Your task to perform on an android device: Show me recent news Image 0: 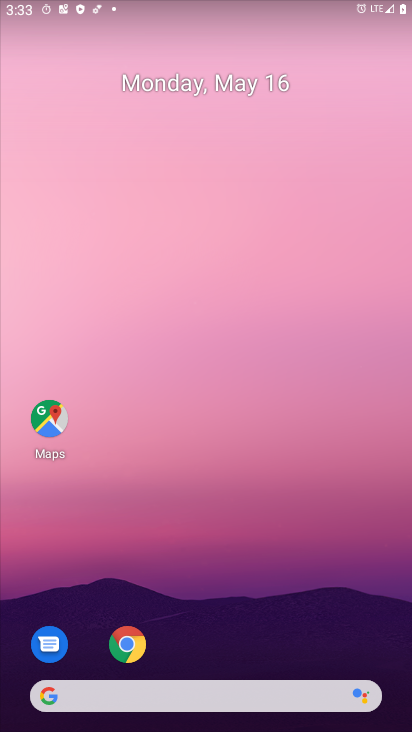
Step 0: drag from (224, 603) to (284, 210)
Your task to perform on an android device: Show me recent news Image 1: 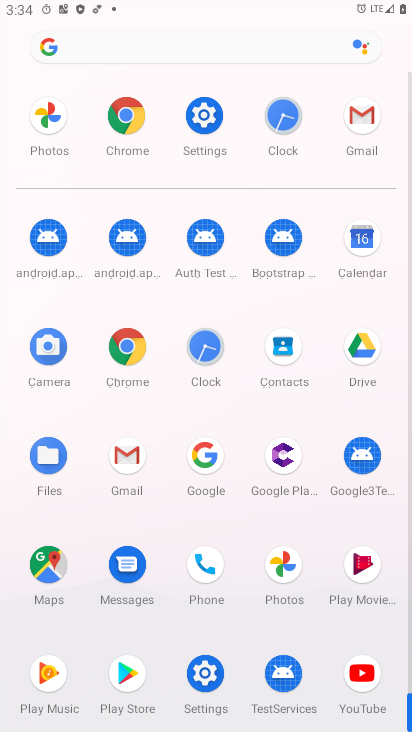
Step 1: click (213, 452)
Your task to perform on an android device: Show me recent news Image 2: 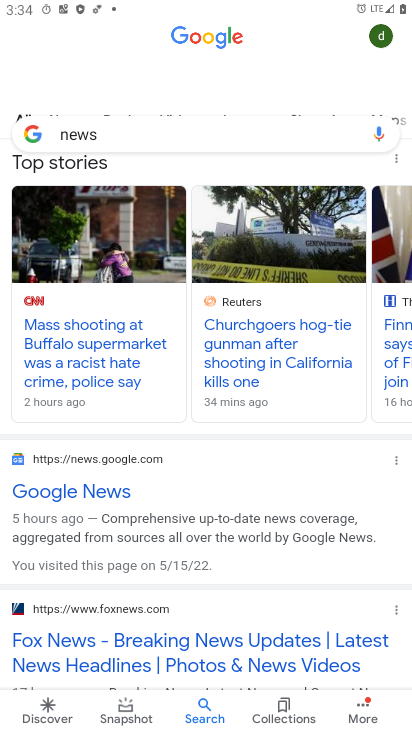
Step 2: drag from (124, 497) to (147, 438)
Your task to perform on an android device: Show me recent news Image 3: 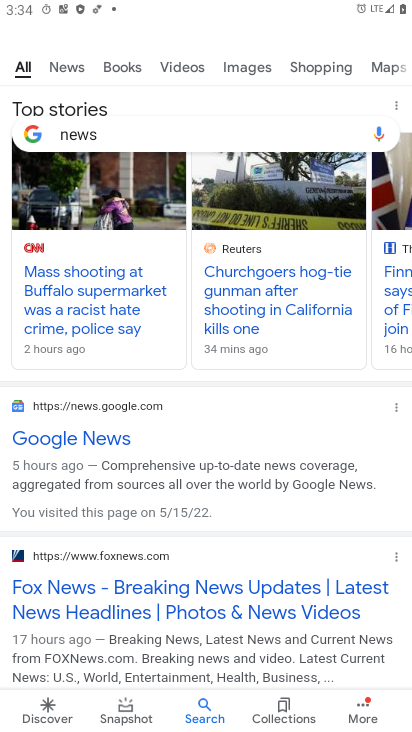
Step 3: click (69, 62)
Your task to perform on an android device: Show me recent news Image 4: 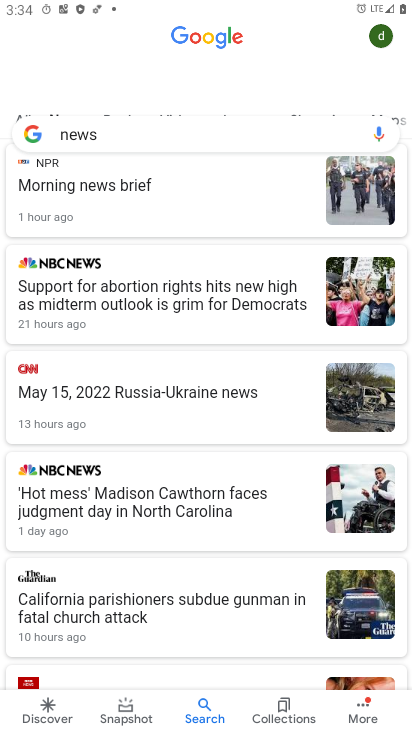
Step 4: task complete